Your task to perform on an android device: open the mobile data screen to see how much data has been used Image 0: 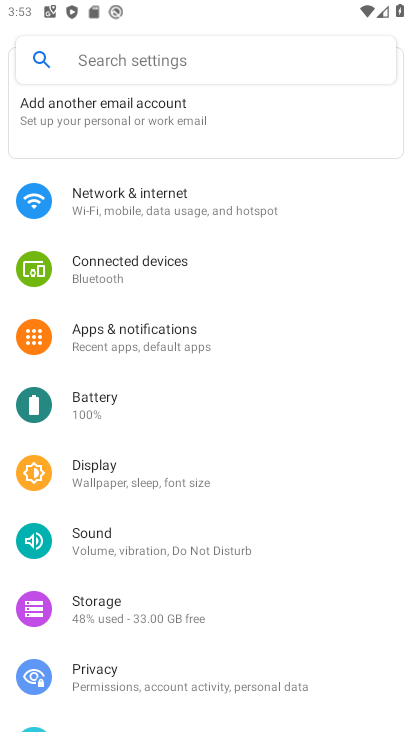
Step 0: press home button
Your task to perform on an android device: open the mobile data screen to see how much data has been used Image 1: 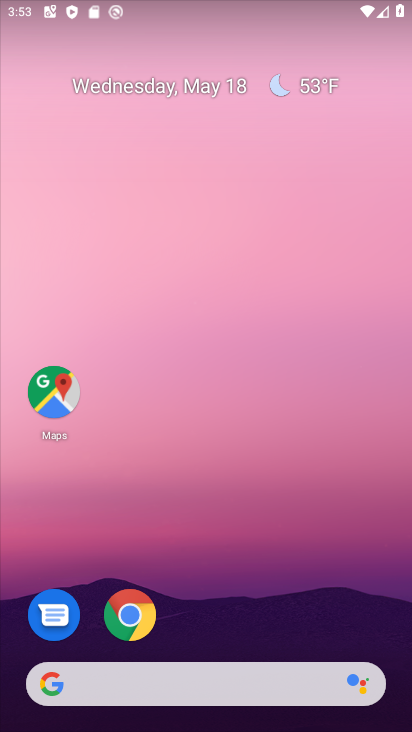
Step 1: drag from (251, 602) to (267, 127)
Your task to perform on an android device: open the mobile data screen to see how much data has been used Image 2: 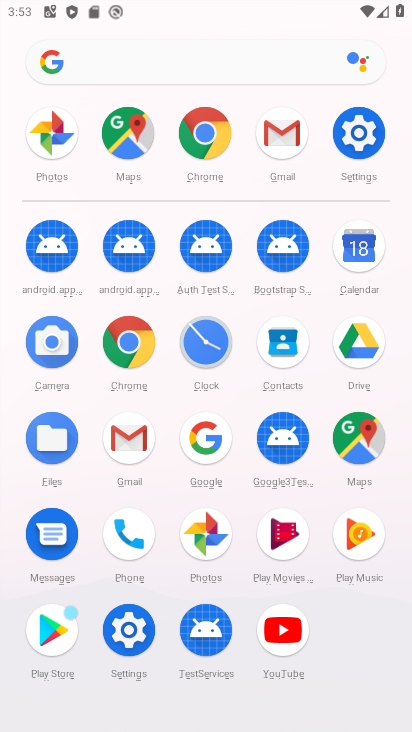
Step 2: click (351, 136)
Your task to perform on an android device: open the mobile data screen to see how much data has been used Image 3: 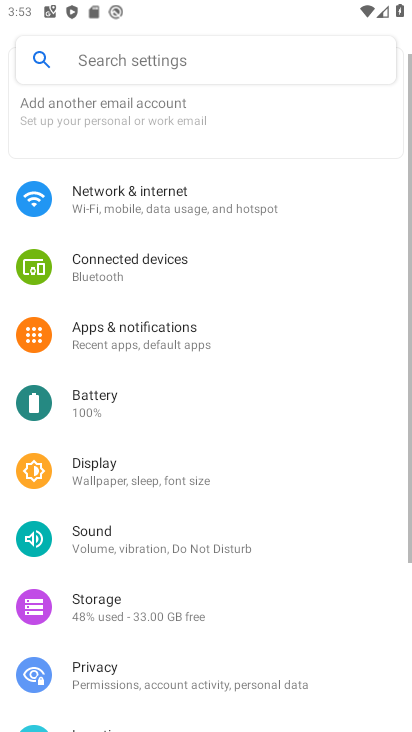
Step 3: click (198, 222)
Your task to perform on an android device: open the mobile data screen to see how much data has been used Image 4: 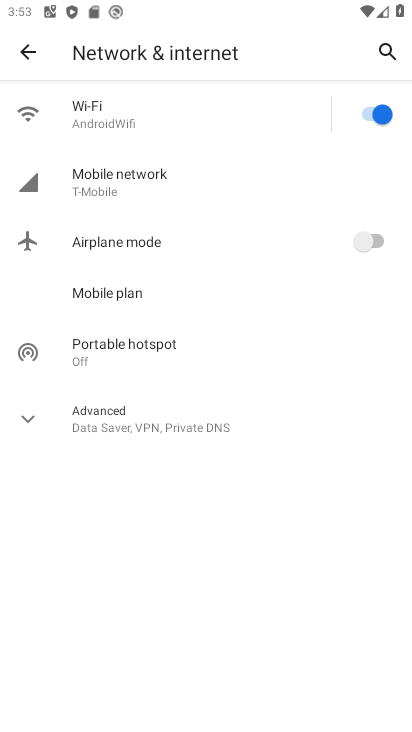
Step 4: click (187, 186)
Your task to perform on an android device: open the mobile data screen to see how much data has been used Image 5: 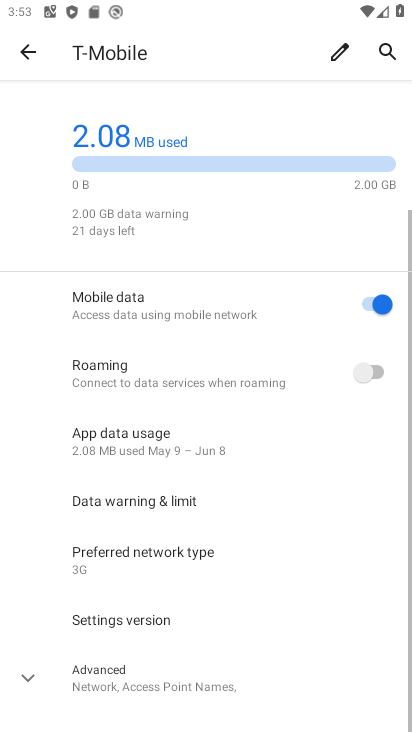
Step 5: task complete